Your task to perform on an android device: turn off picture-in-picture Image 0: 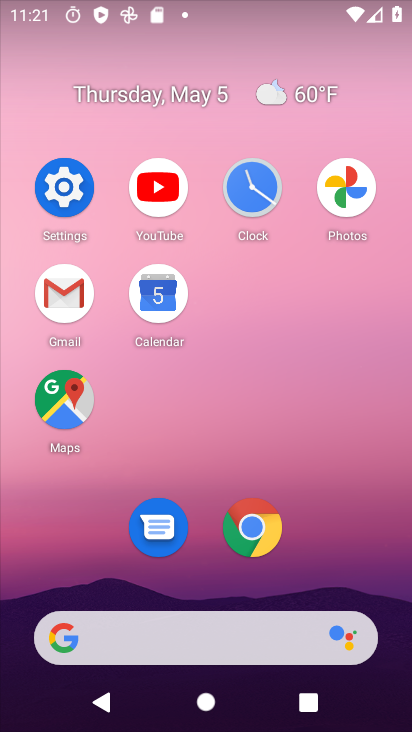
Step 0: click (263, 526)
Your task to perform on an android device: turn off picture-in-picture Image 1: 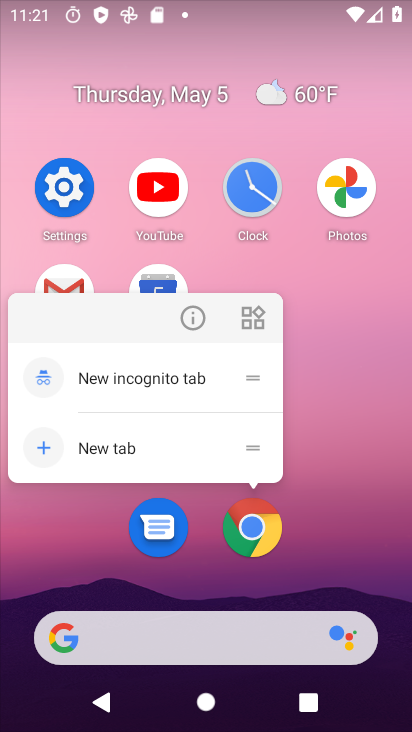
Step 1: click (193, 324)
Your task to perform on an android device: turn off picture-in-picture Image 2: 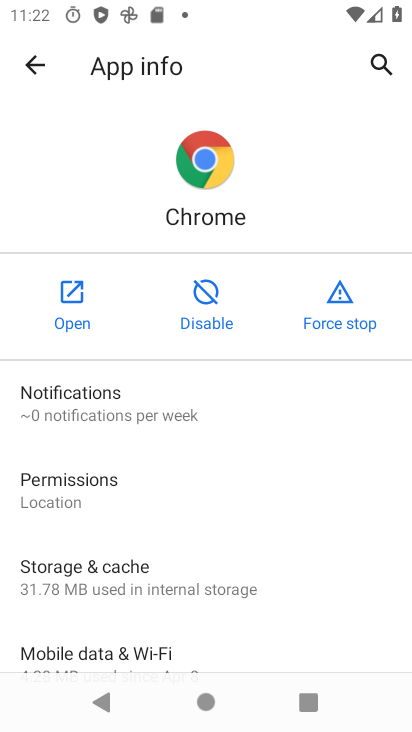
Step 2: drag from (249, 526) to (262, 115)
Your task to perform on an android device: turn off picture-in-picture Image 3: 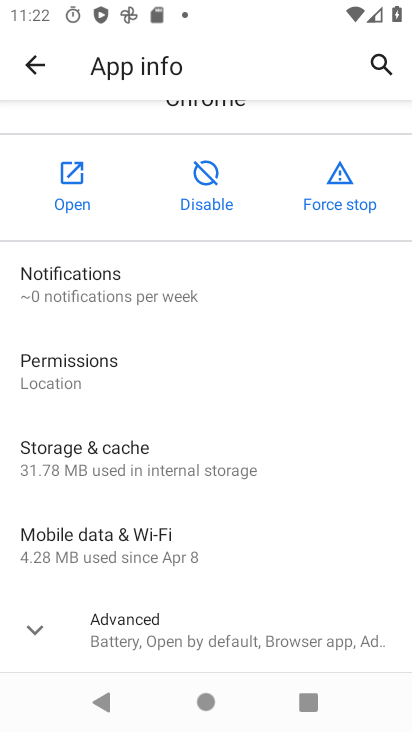
Step 3: click (174, 617)
Your task to perform on an android device: turn off picture-in-picture Image 4: 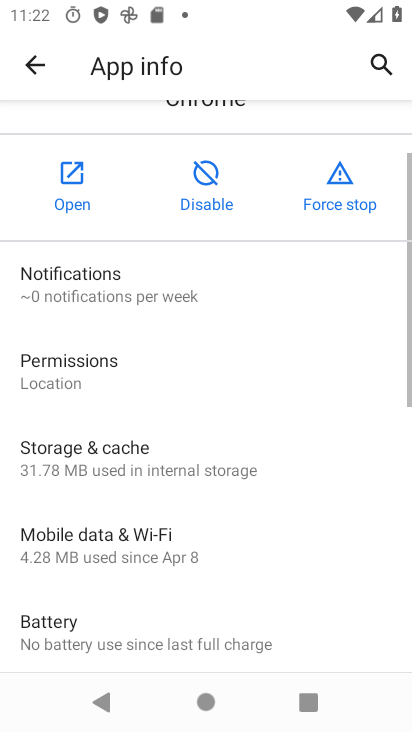
Step 4: drag from (171, 610) to (181, 162)
Your task to perform on an android device: turn off picture-in-picture Image 5: 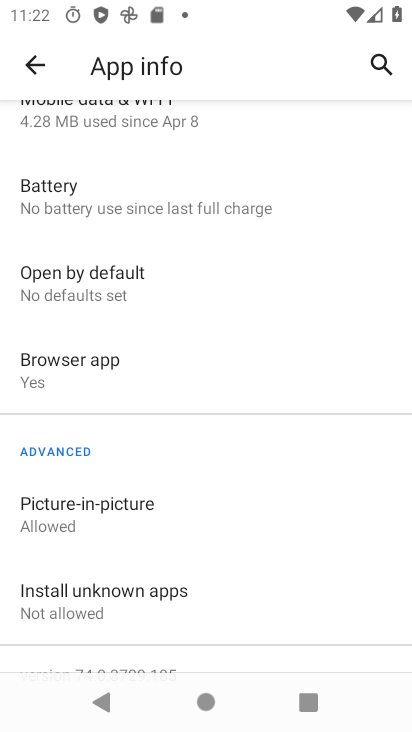
Step 5: click (148, 525)
Your task to perform on an android device: turn off picture-in-picture Image 6: 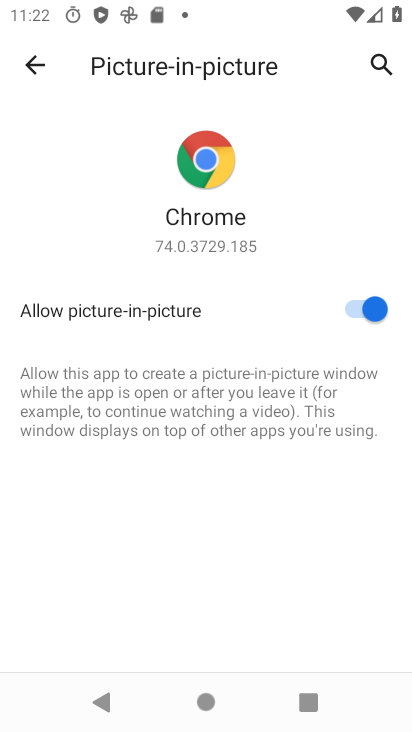
Step 6: click (368, 315)
Your task to perform on an android device: turn off picture-in-picture Image 7: 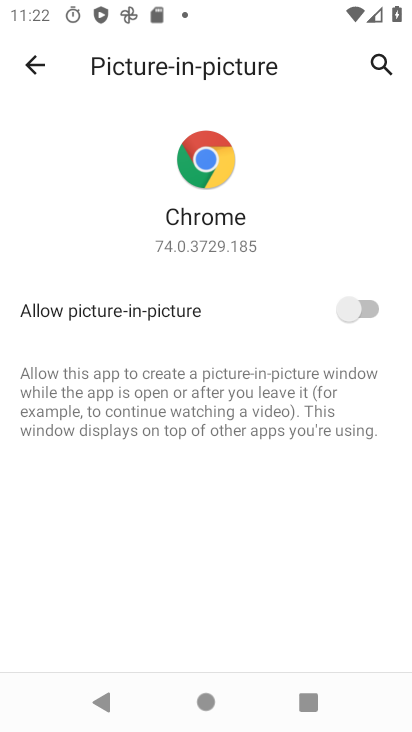
Step 7: task complete